Your task to perform on an android device: make emails show in primary in the gmail app Image 0: 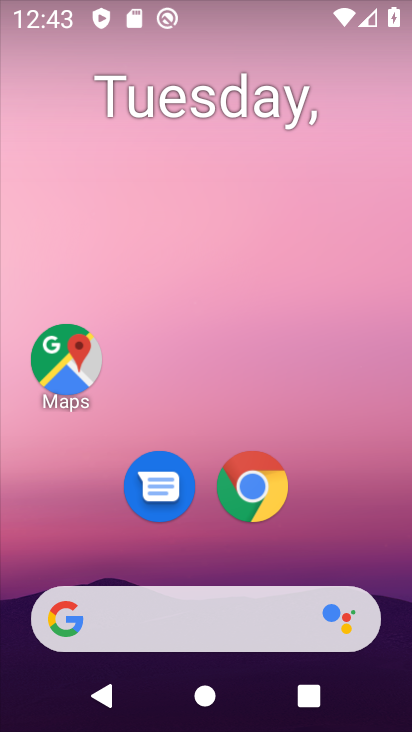
Step 0: drag from (354, 520) to (272, 108)
Your task to perform on an android device: make emails show in primary in the gmail app Image 1: 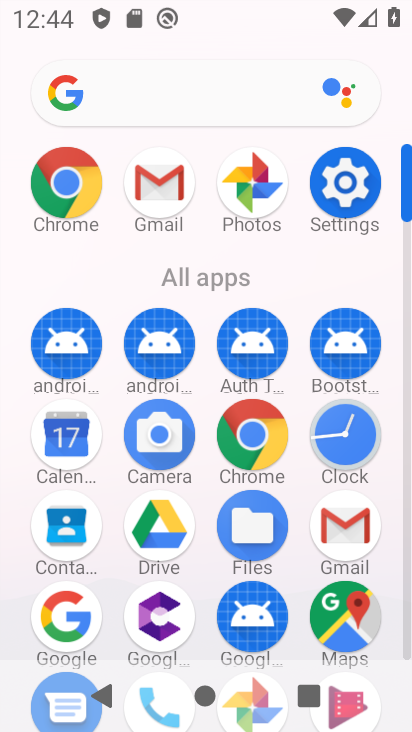
Step 1: click (164, 180)
Your task to perform on an android device: make emails show in primary in the gmail app Image 2: 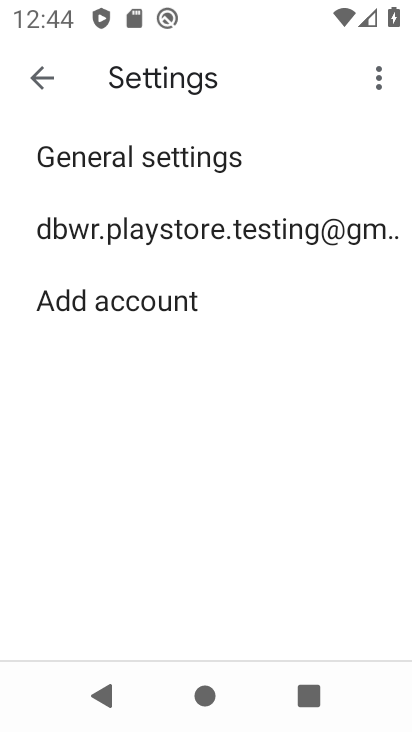
Step 2: click (194, 235)
Your task to perform on an android device: make emails show in primary in the gmail app Image 3: 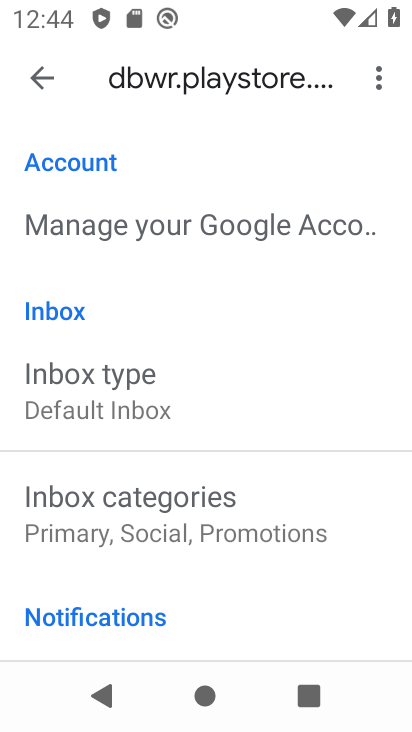
Step 3: task complete